Your task to perform on an android device: change text size in settings app Image 0: 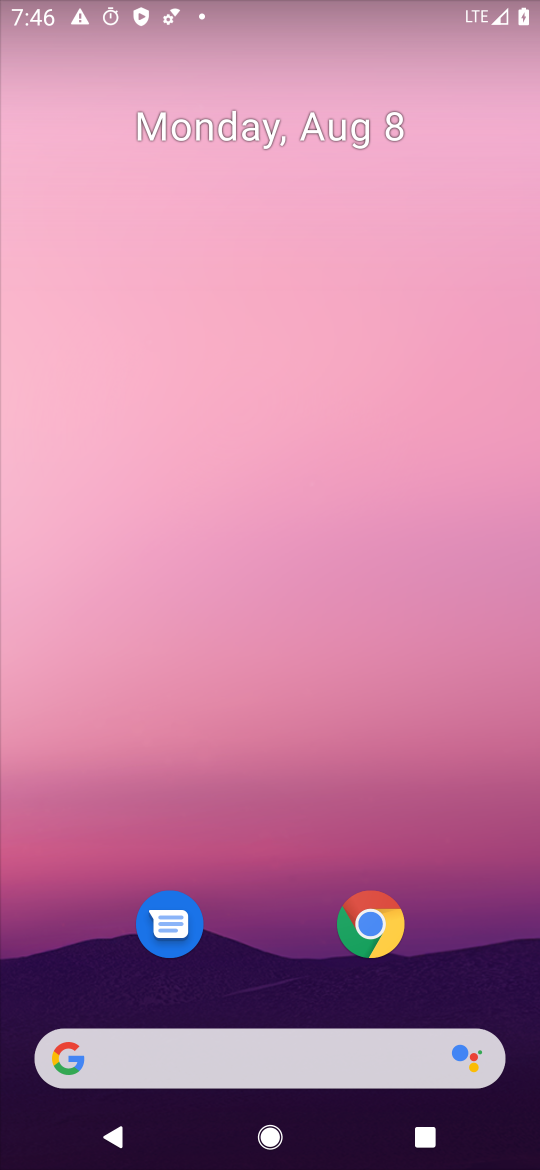
Step 0: click (515, 748)
Your task to perform on an android device: change text size in settings app Image 1: 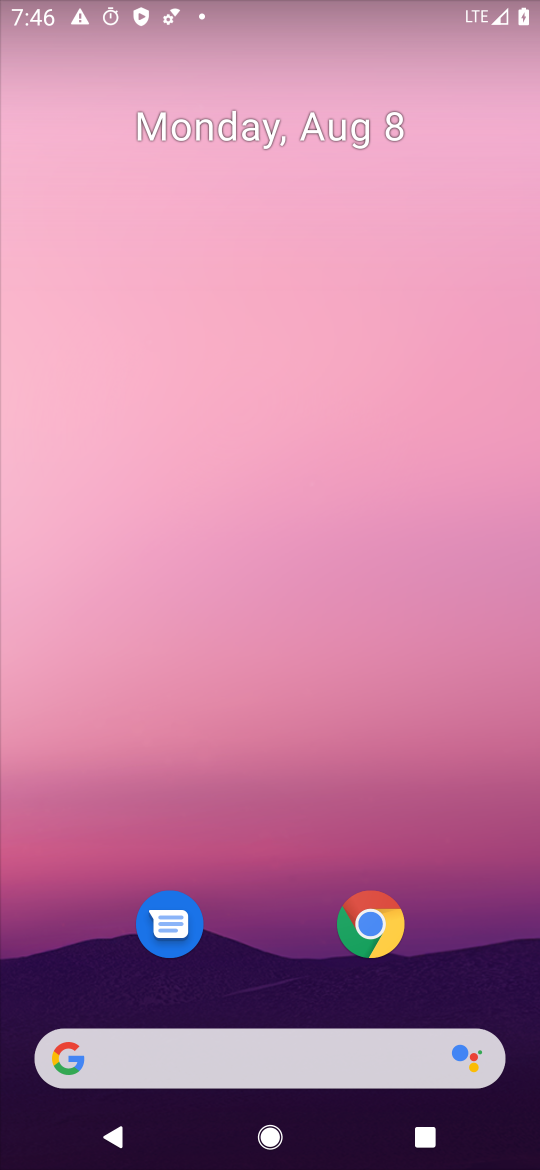
Step 1: drag from (312, 799) to (343, 212)
Your task to perform on an android device: change text size in settings app Image 2: 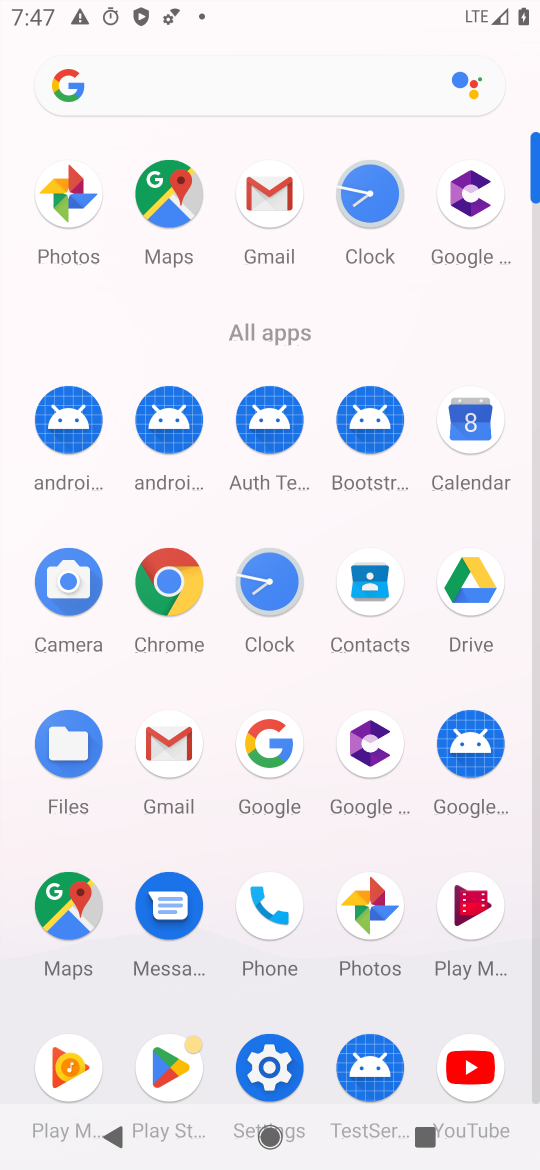
Step 2: click (226, 1060)
Your task to perform on an android device: change text size in settings app Image 3: 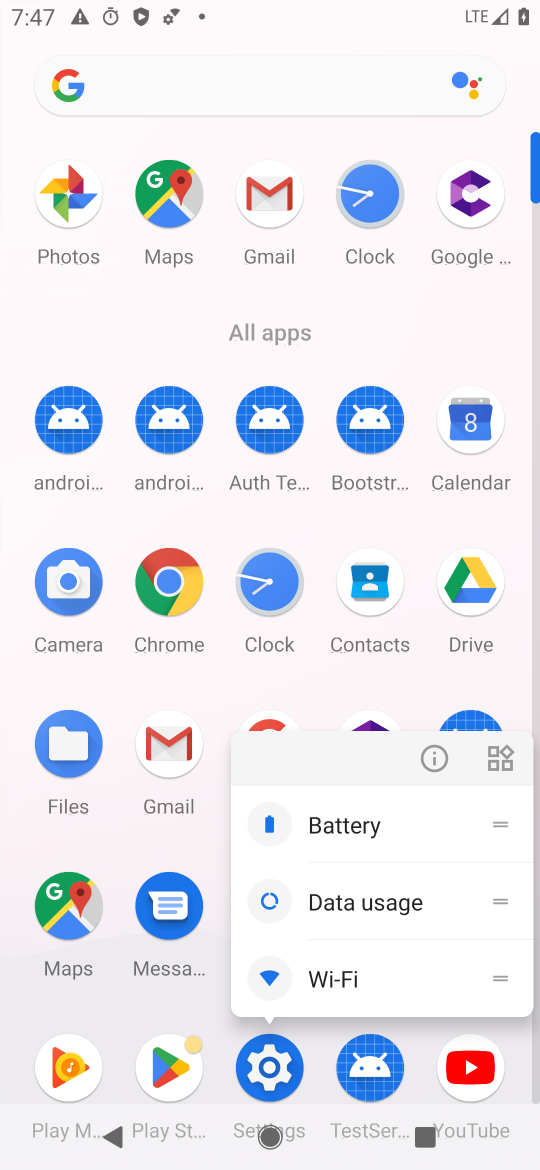
Step 3: click (443, 748)
Your task to perform on an android device: change text size in settings app Image 4: 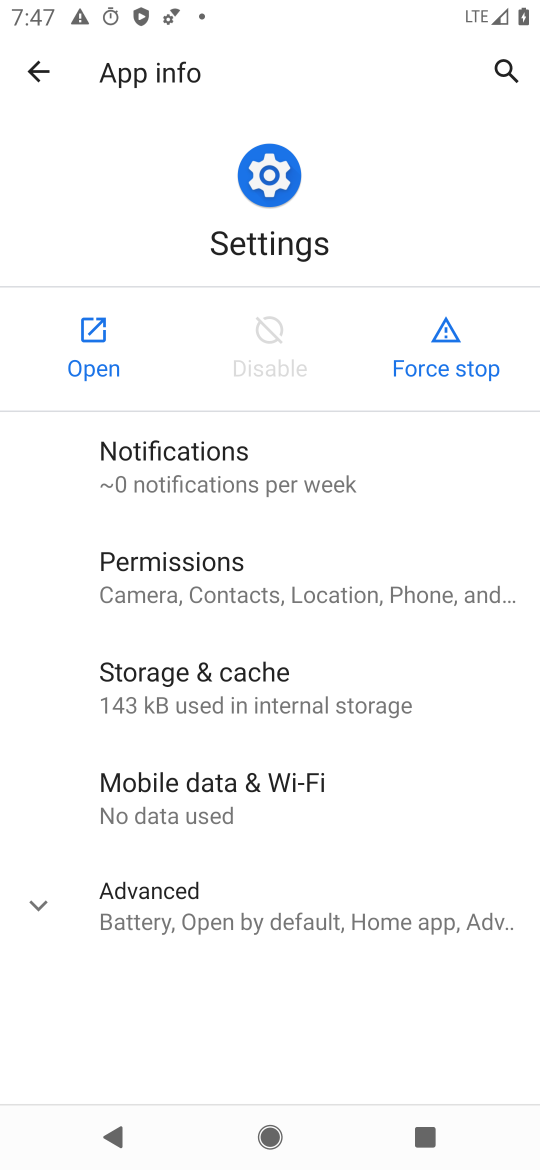
Step 4: click (92, 377)
Your task to perform on an android device: change text size in settings app Image 5: 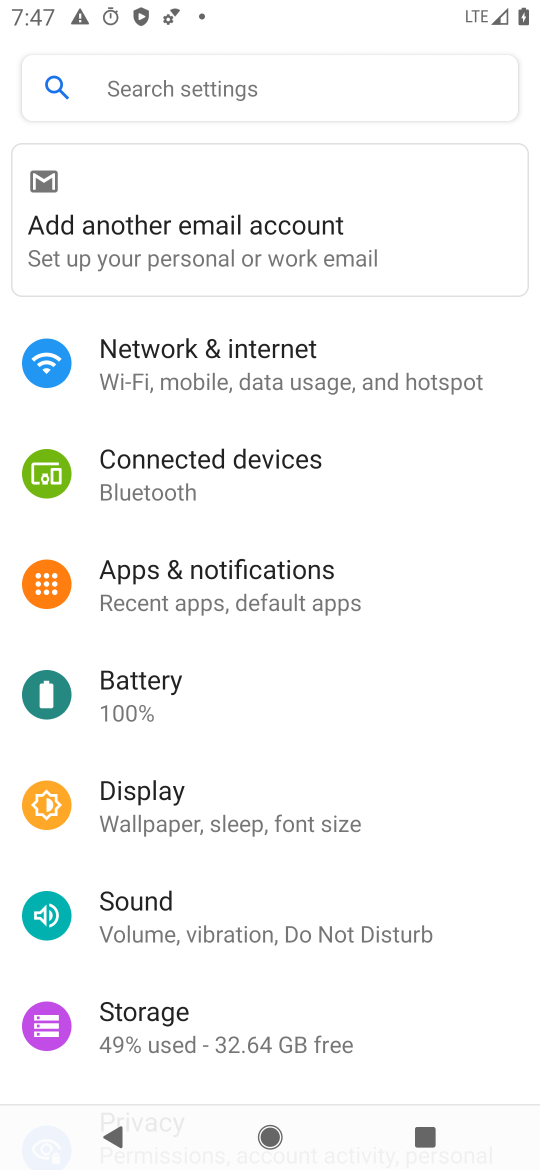
Step 5: drag from (176, 516) to (409, 197)
Your task to perform on an android device: change text size in settings app Image 6: 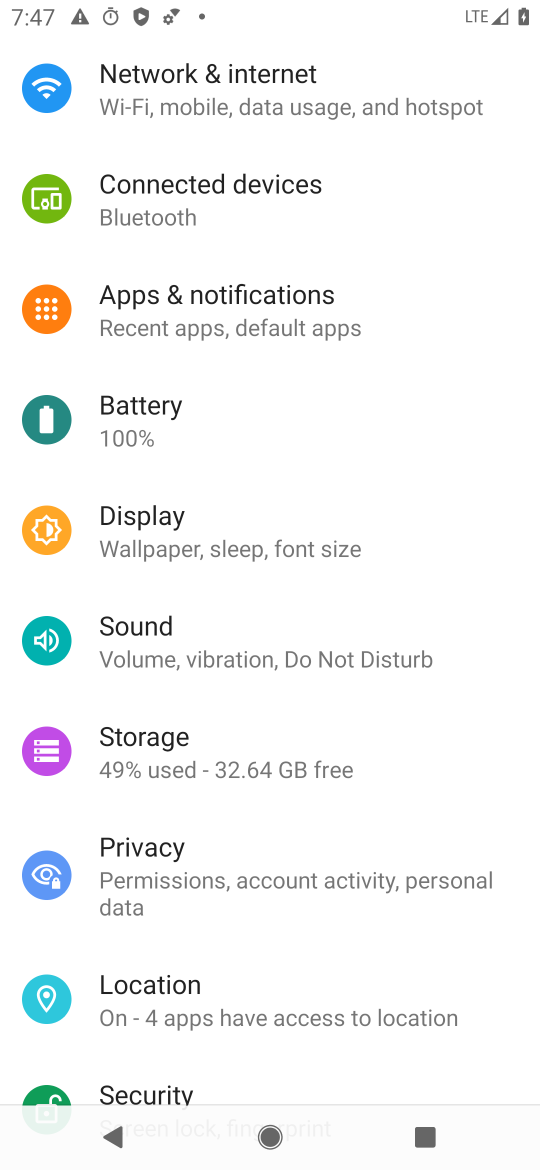
Step 6: click (231, 515)
Your task to perform on an android device: change text size in settings app Image 7: 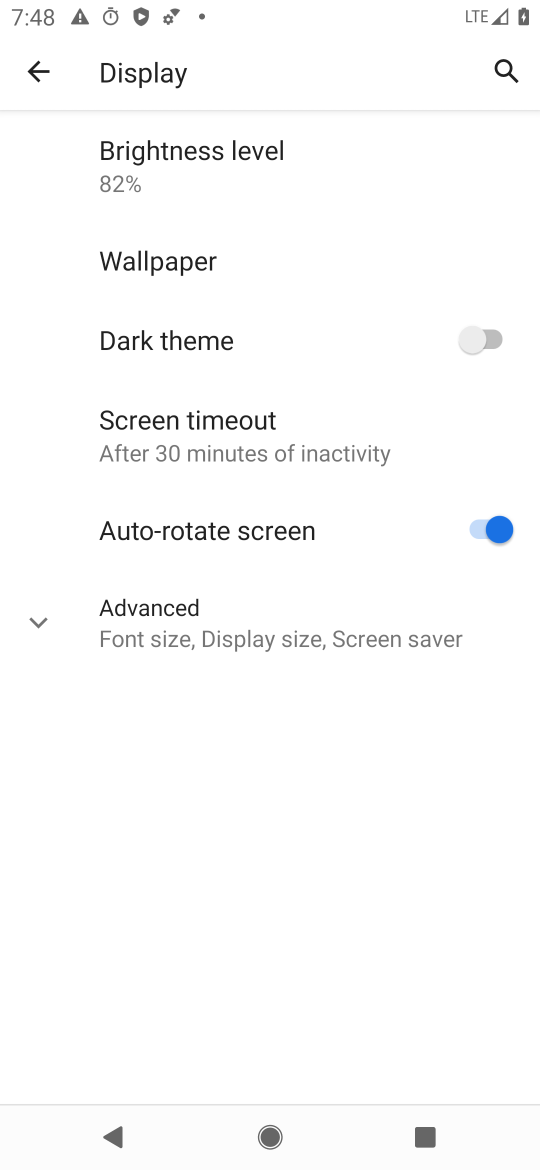
Step 7: click (208, 637)
Your task to perform on an android device: change text size in settings app Image 8: 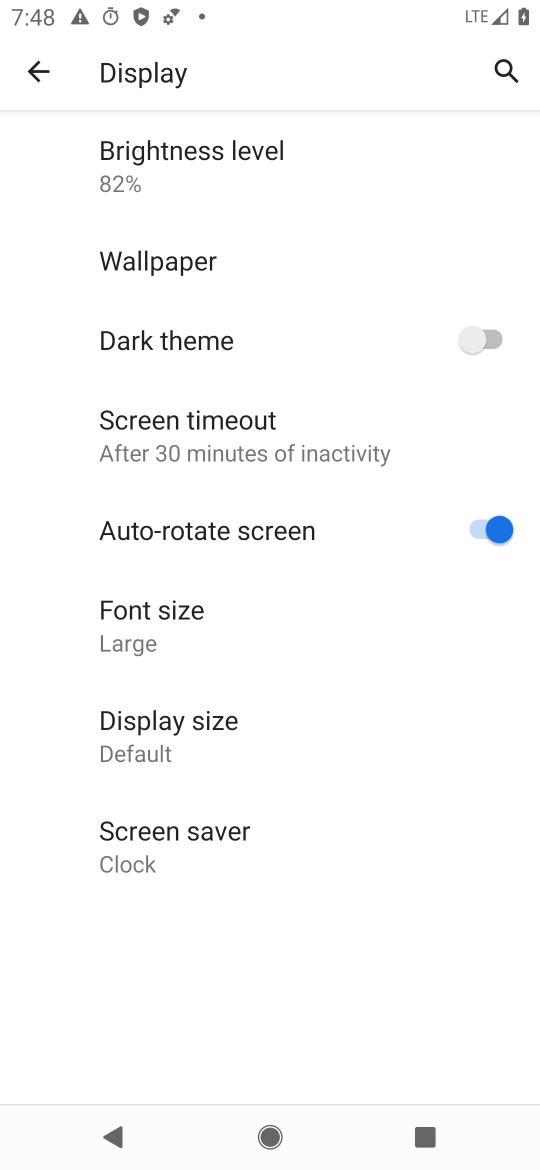
Step 8: click (313, 621)
Your task to perform on an android device: change text size in settings app Image 9: 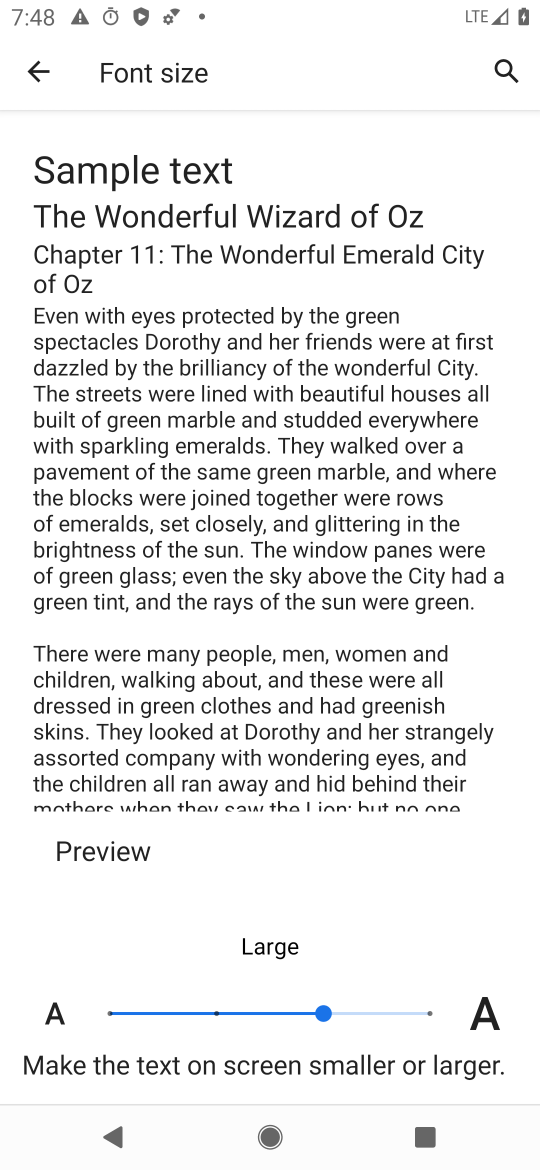
Step 9: click (421, 1011)
Your task to perform on an android device: change text size in settings app Image 10: 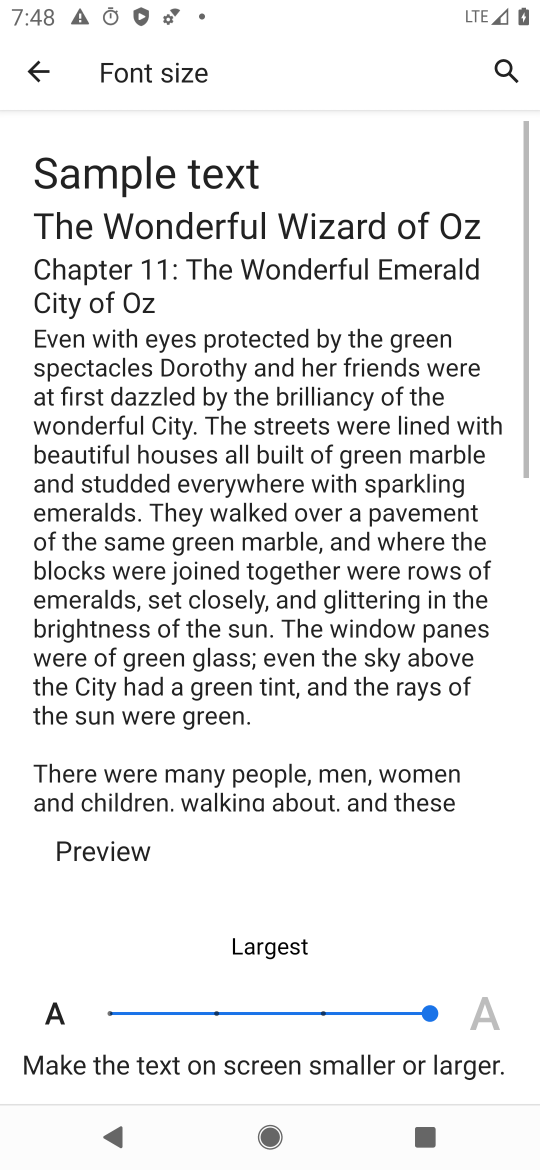
Step 10: task complete